Your task to perform on an android device: allow cookies in the chrome app Image 0: 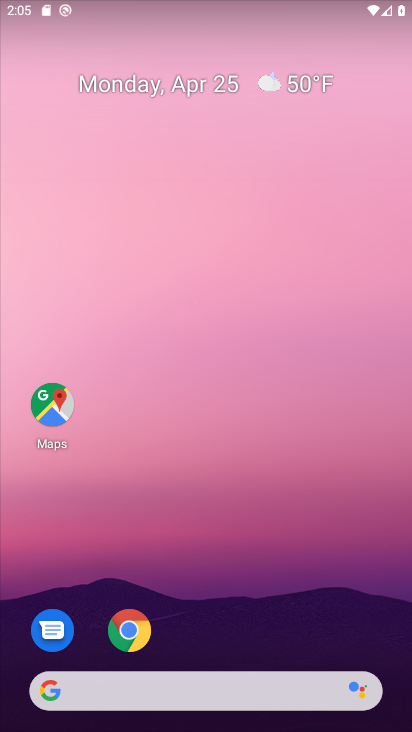
Step 0: click (133, 629)
Your task to perform on an android device: allow cookies in the chrome app Image 1: 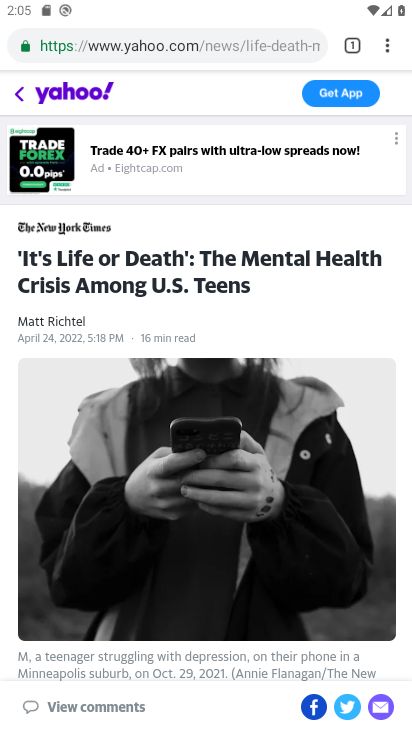
Step 1: click (391, 42)
Your task to perform on an android device: allow cookies in the chrome app Image 2: 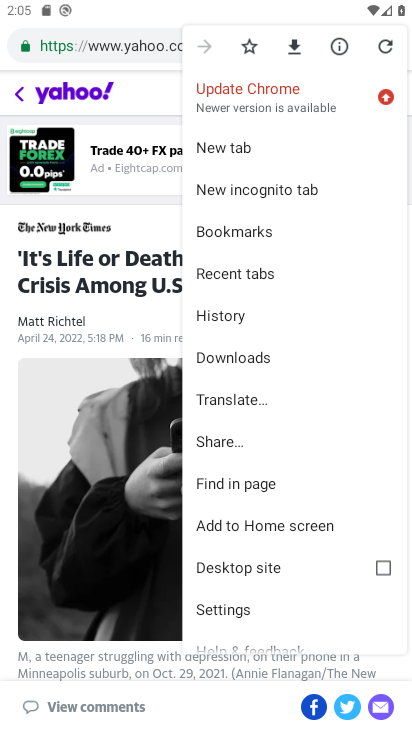
Step 2: click (225, 602)
Your task to perform on an android device: allow cookies in the chrome app Image 3: 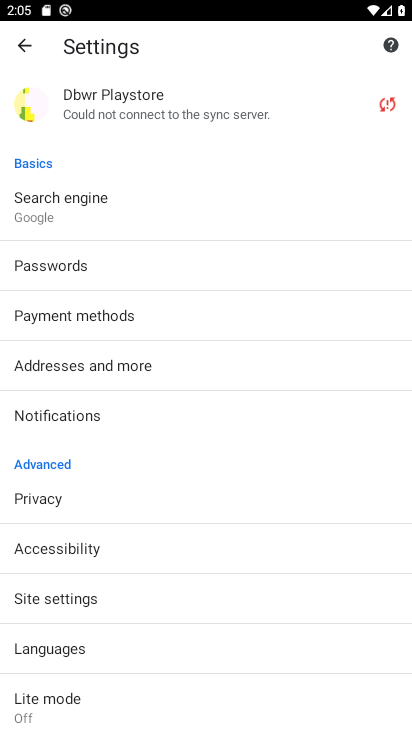
Step 3: click (62, 609)
Your task to perform on an android device: allow cookies in the chrome app Image 4: 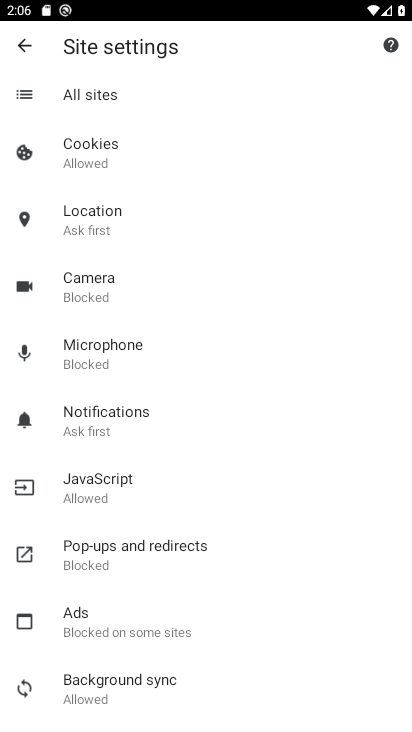
Step 4: click (114, 166)
Your task to perform on an android device: allow cookies in the chrome app Image 5: 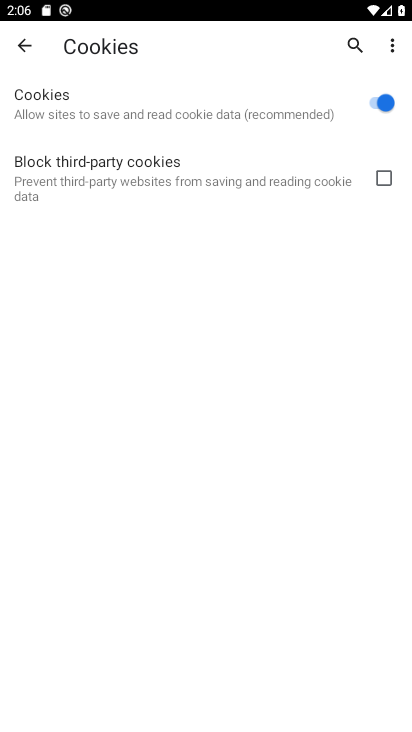
Step 5: task complete